Your task to perform on an android device: Turn off the flashlight Image 0: 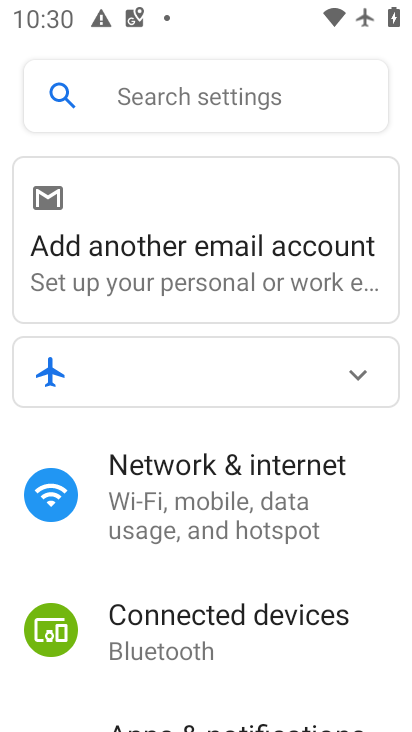
Step 0: press home button
Your task to perform on an android device: Turn off the flashlight Image 1: 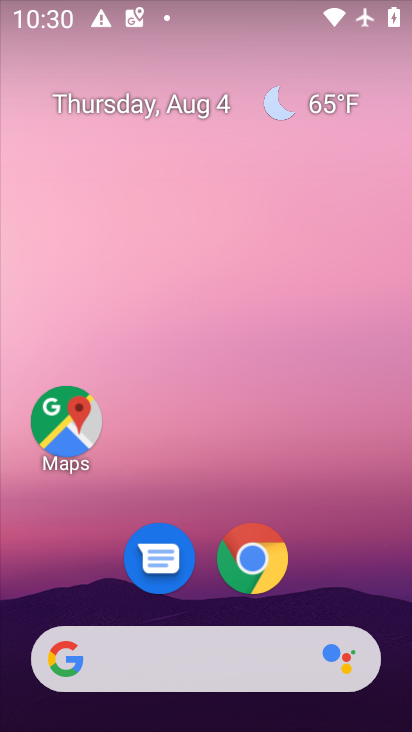
Step 1: drag from (360, 532) to (241, 70)
Your task to perform on an android device: Turn off the flashlight Image 2: 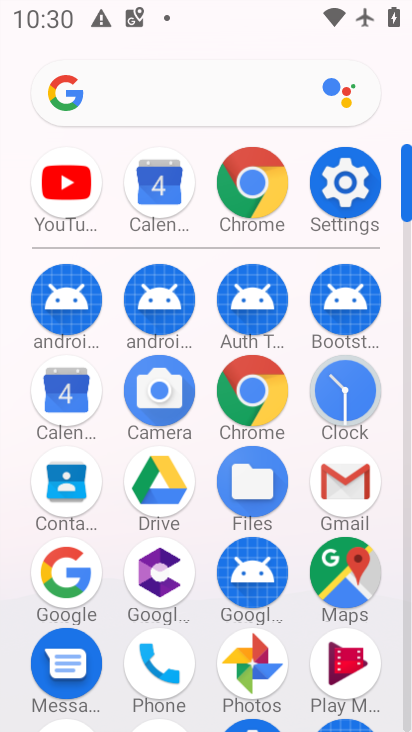
Step 2: drag from (205, 620) to (226, 335)
Your task to perform on an android device: Turn off the flashlight Image 3: 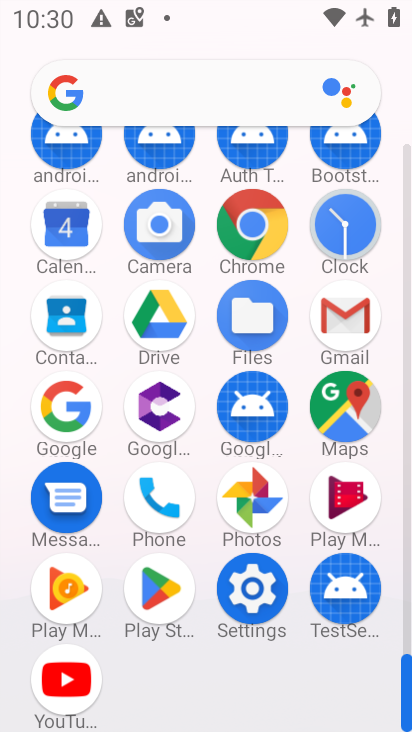
Step 3: click (247, 588)
Your task to perform on an android device: Turn off the flashlight Image 4: 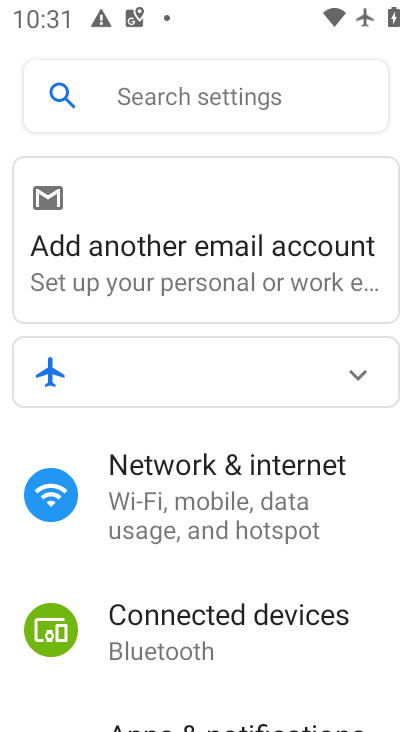
Step 4: drag from (332, 643) to (285, 186)
Your task to perform on an android device: Turn off the flashlight Image 5: 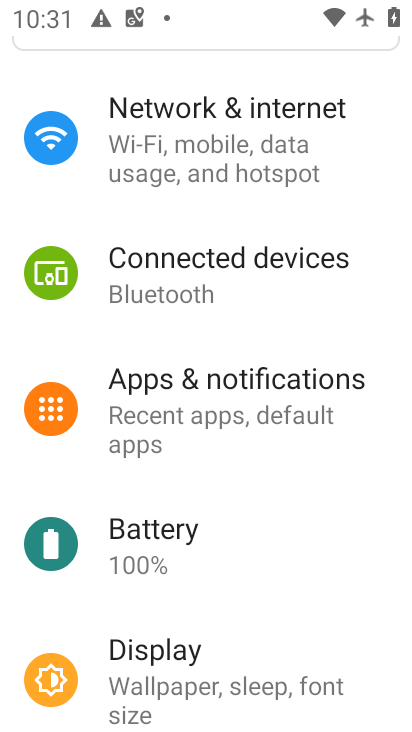
Step 5: click (157, 672)
Your task to perform on an android device: Turn off the flashlight Image 6: 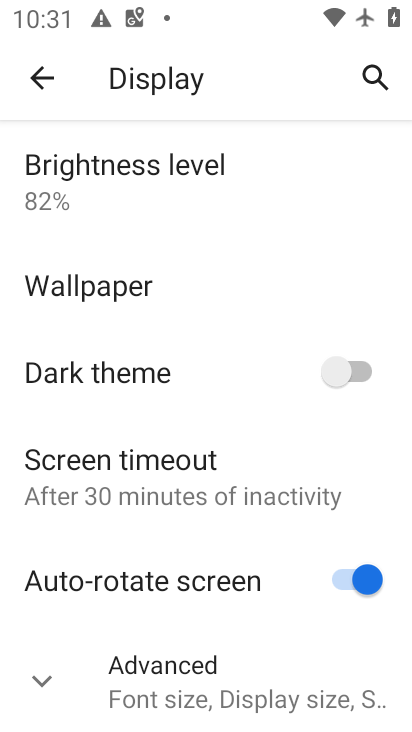
Step 6: click (169, 484)
Your task to perform on an android device: Turn off the flashlight Image 7: 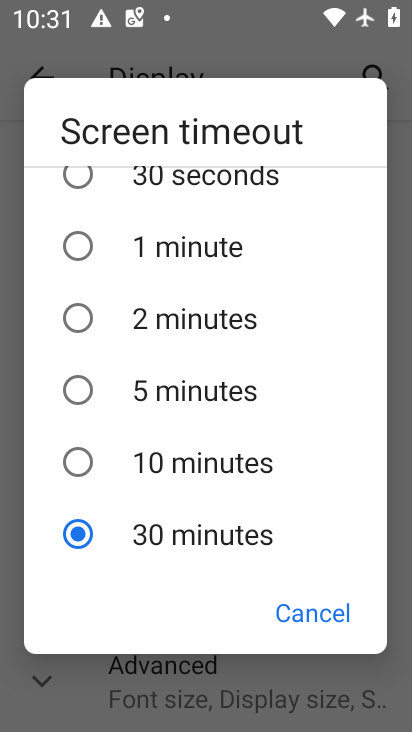
Step 7: task complete